Your task to perform on an android device: add a contact in the contacts app Image 0: 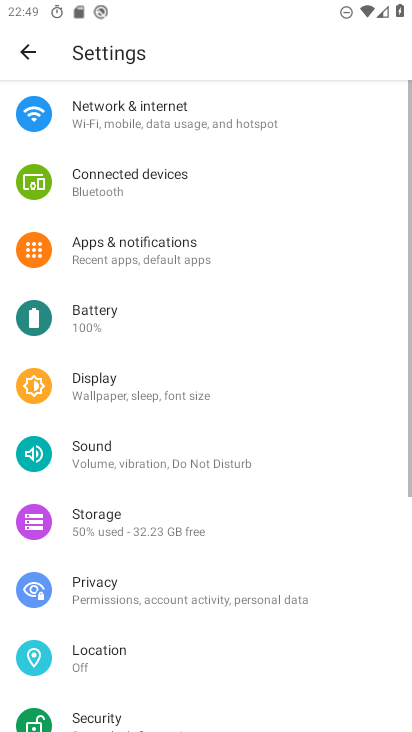
Step 0: press home button
Your task to perform on an android device: add a contact in the contacts app Image 1: 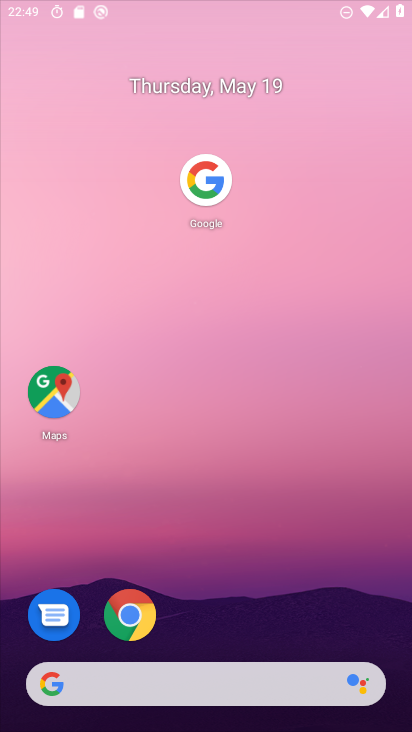
Step 1: drag from (239, 571) to (263, 61)
Your task to perform on an android device: add a contact in the contacts app Image 2: 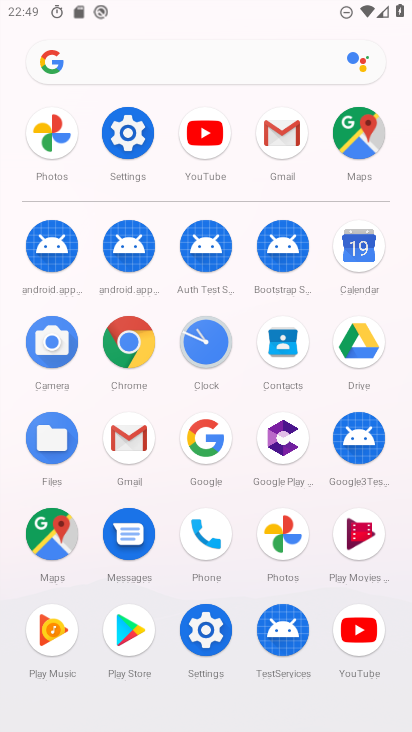
Step 2: click (282, 350)
Your task to perform on an android device: add a contact in the contacts app Image 3: 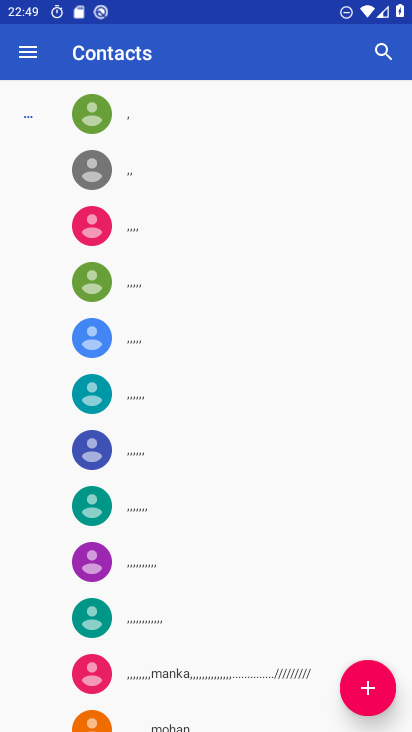
Step 3: click (371, 684)
Your task to perform on an android device: add a contact in the contacts app Image 4: 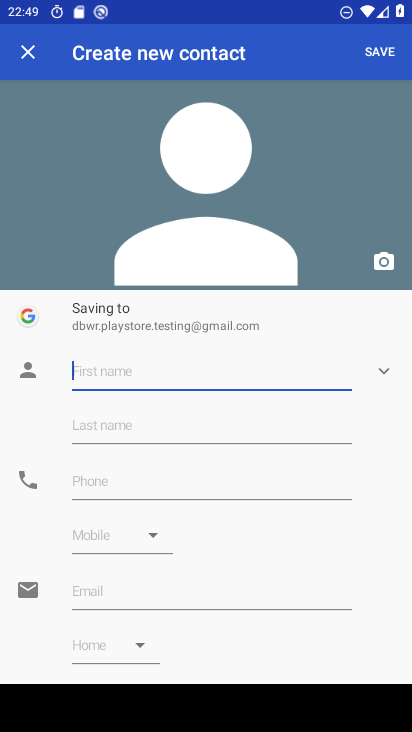
Step 4: type "tdg"
Your task to perform on an android device: add a contact in the contacts app Image 5: 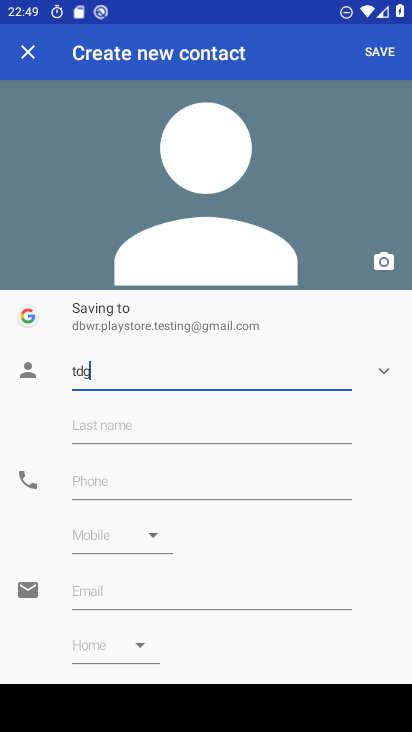
Step 5: click (374, 54)
Your task to perform on an android device: add a contact in the contacts app Image 6: 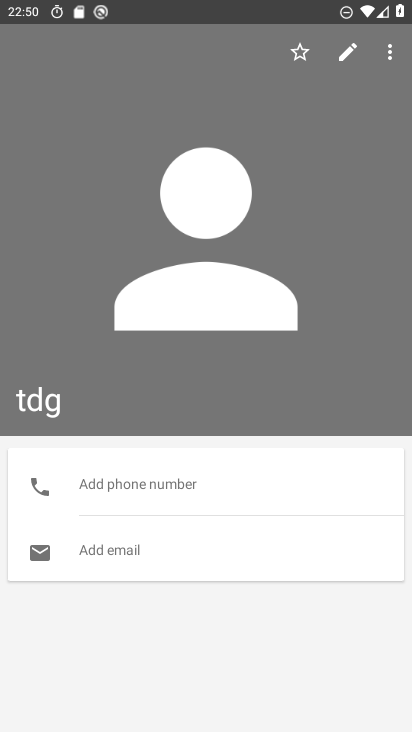
Step 6: task complete